Your task to perform on an android device: Open settings Image 0: 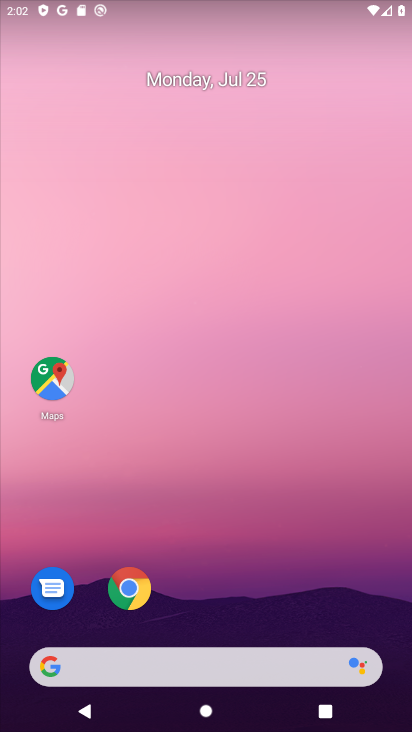
Step 0: drag from (320, 609) to (302, 22)
Your task to perform on an android device: Open settings Image 1: 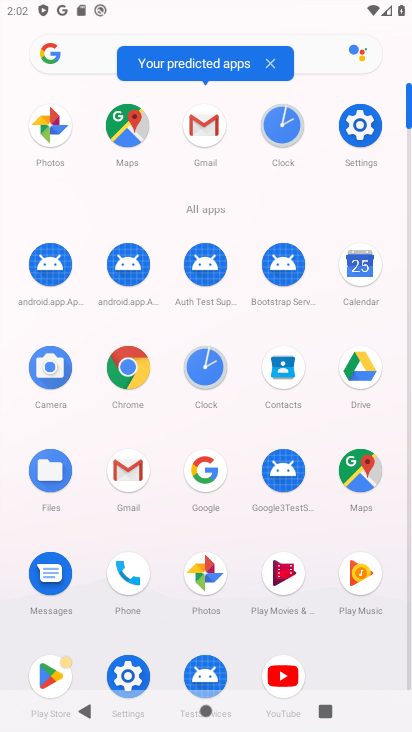
Step 1: click (369, 127)
Your task to perform on an android device: Open settings Image 2: 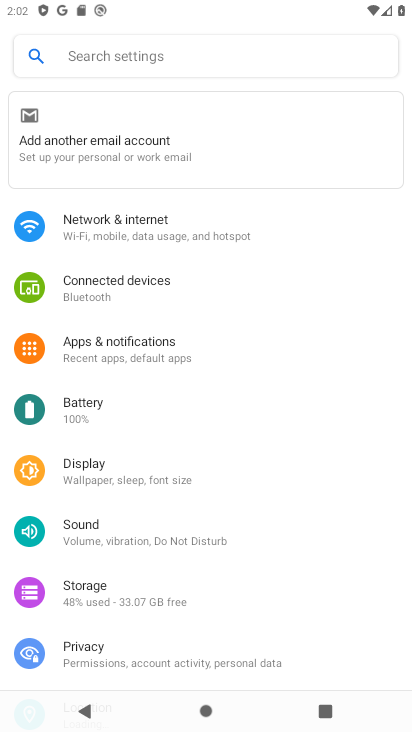
Step 2: task complete